Your task to perform on an android device: What's the weather today? Image 0: 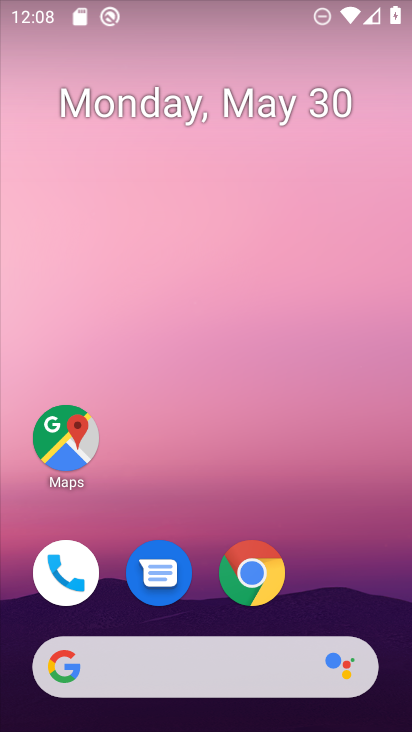
Step 0: press home button
Your task to perform on an android device: What's the weather today? Image 1: 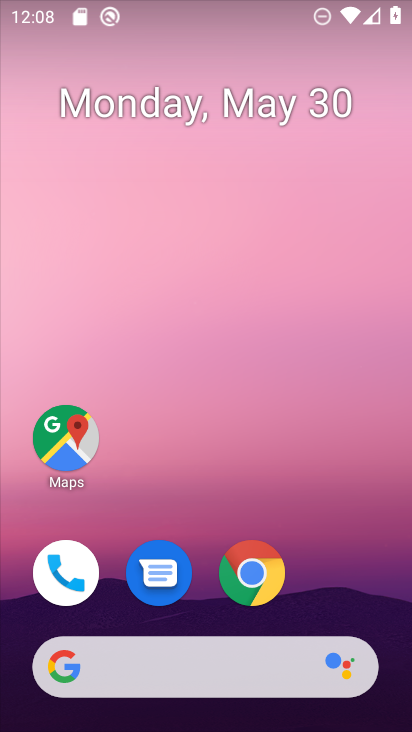
Step 1: click (67, 669)
Your task to perform on an android device: What's the weather today? Image 2: 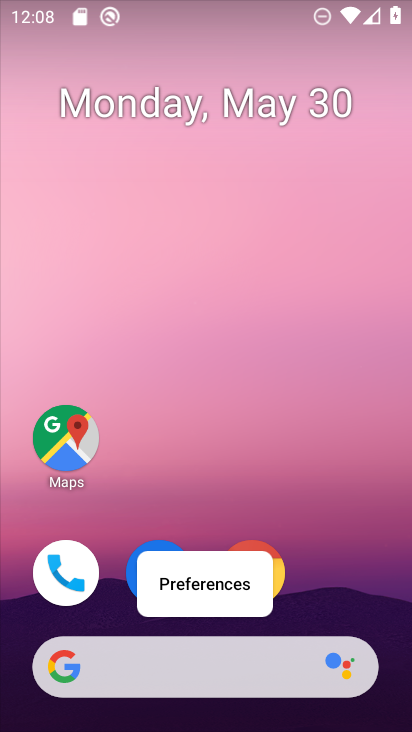
Step 2: click (60, 666)
Your task to perform on an android device: What's the weather today? Image 3: 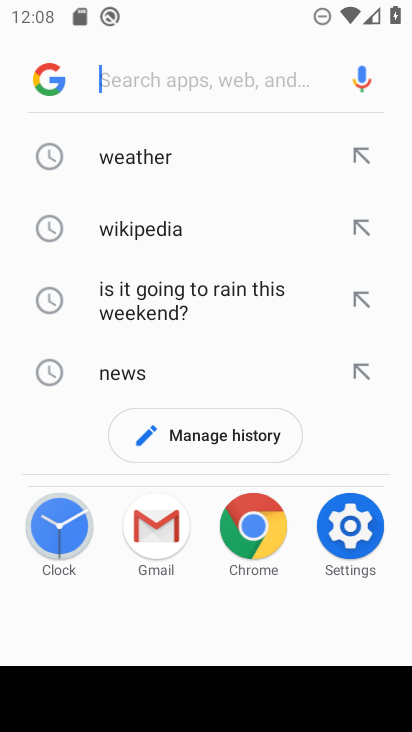
Step 3: type "weather today?"
Your task to perform on an android device: What's the weather today? Image 4: 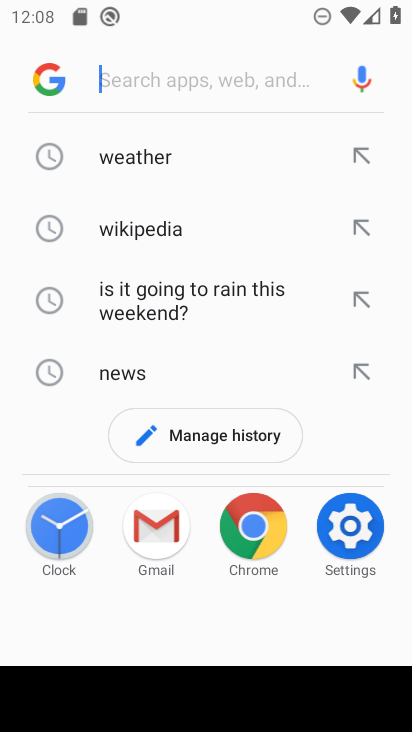
Step 4: click (202, 84)
Your task to perform on an android device: What's the weather today? Image 5: 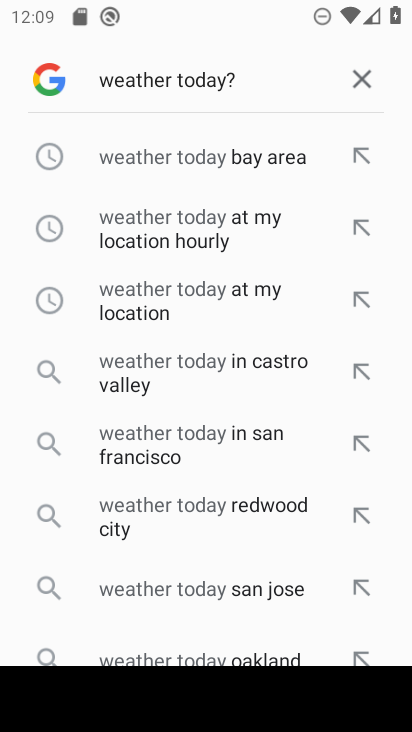
Step 5: click (190, 286)
Your task to perform on an android device: What's the weather today? Image 6: 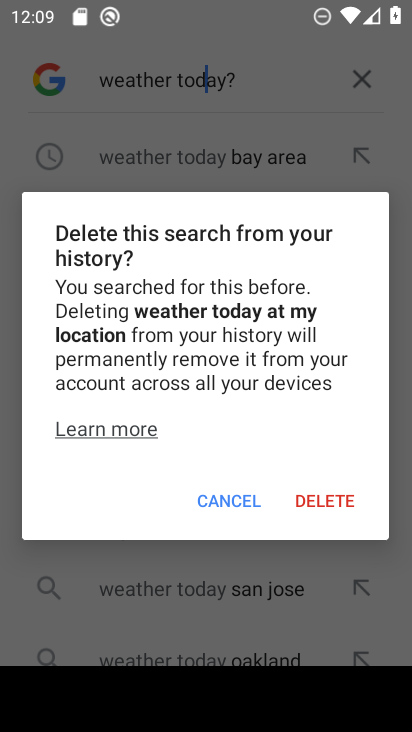
Step 6: click (312, 502)
Your task to perform on an android device: What's the weather today? Image 7: 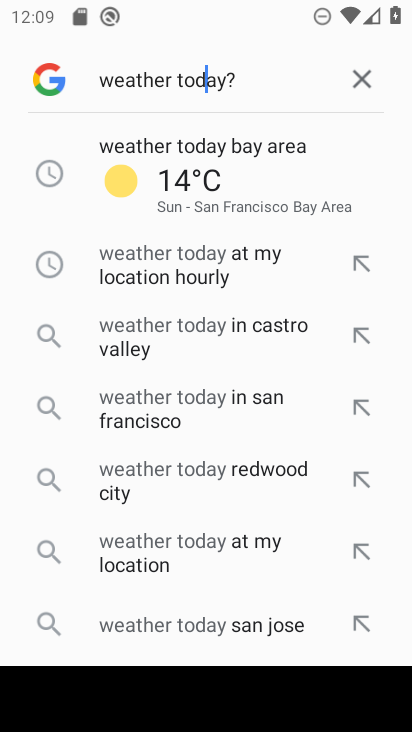
Step 7: click (166, 546)
Your task to perform on an android device: What's the weather today? Image 8: 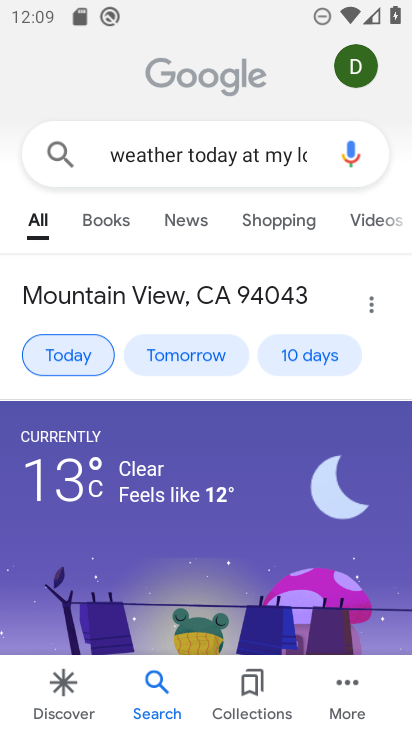
Step 8: task complete